Your task to perform on an android device: Open Google Image 0: 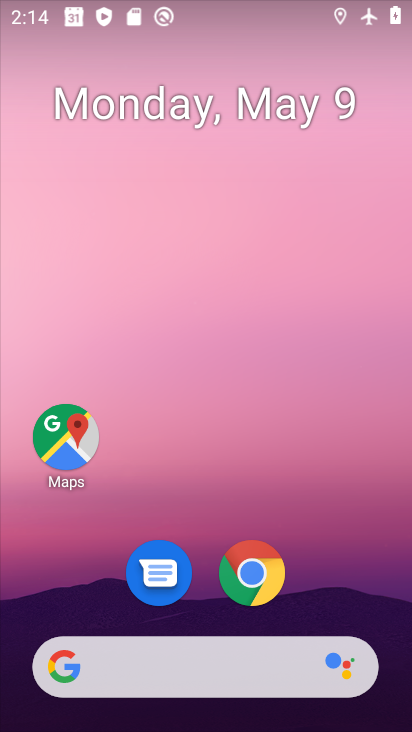
Step 0: drag from (354, 682) to (311, 249)
Your task to perform on an android device: Open Google Image 1: 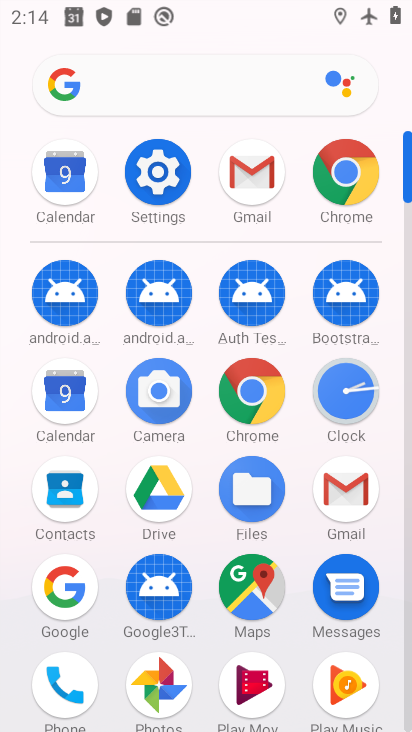
Step 1: click (63, 596)
Your task to perform on an android device: Open Google Image 2: 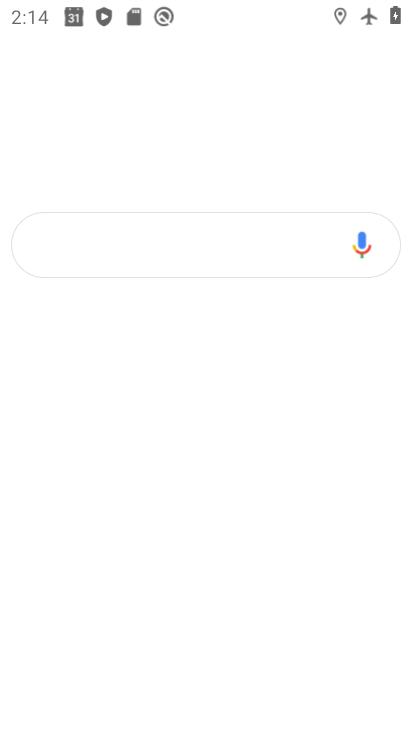
Step 2: click (62, 597)
Your task to perform on an android device: Open Google Image 3: 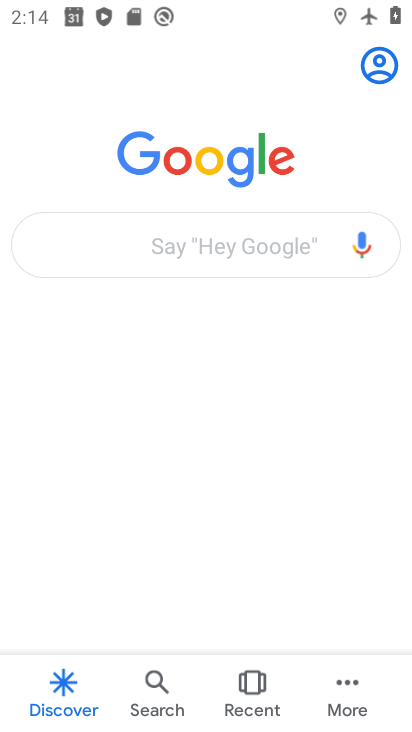
Step 3: task complete